Your task to perform on an android device: Go to calendar. Show me events next week Image 0: 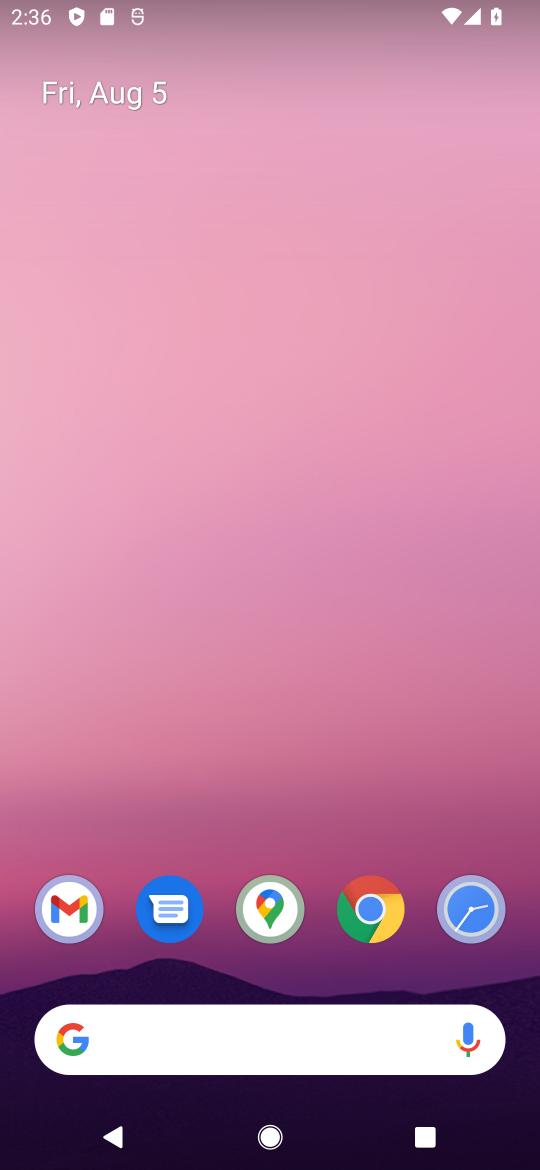
Step 0: drag from (210, 970) to (341, 157)
Your task to perform on an android device: Go to calendar. Show me events next week Image 1: 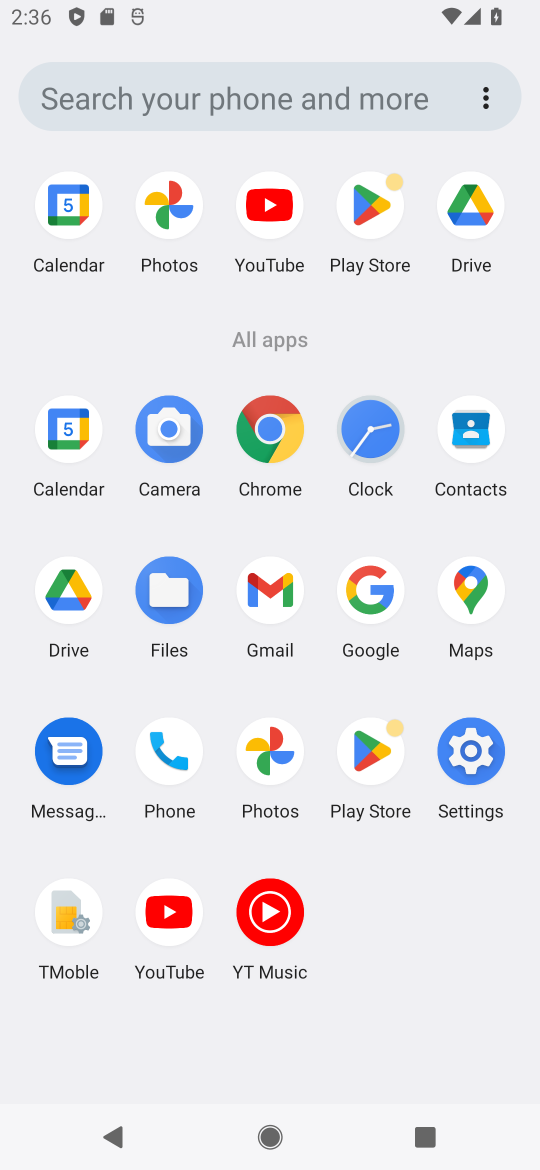
Step 1: click (59, 460)
Your task to perform on an android device: Go to calendar. Show me events next week Image 2: 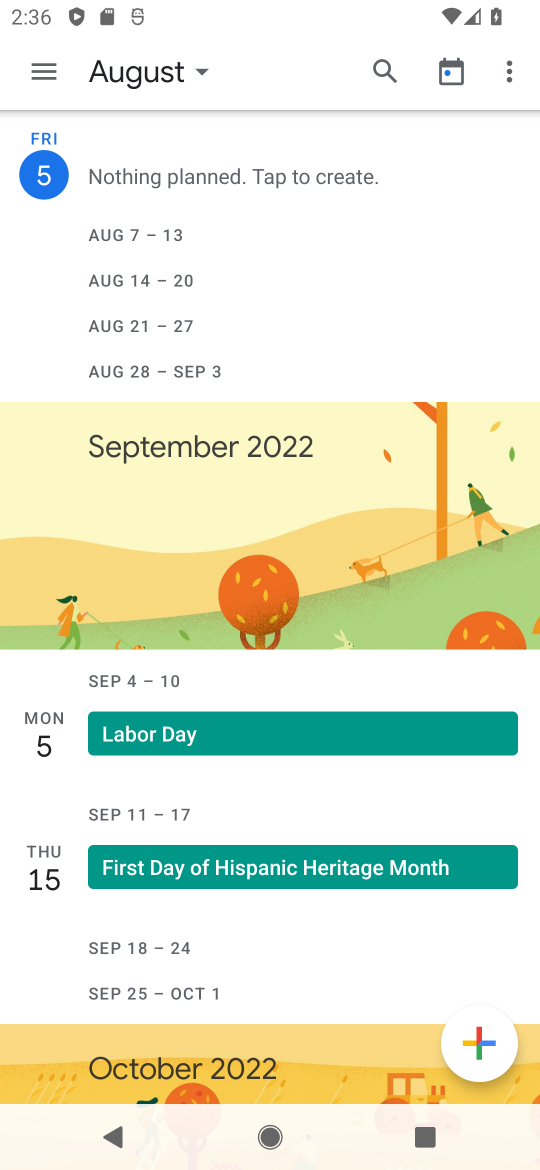
Step 2: task complete